Your task to perform on an android device: add a contact Image 0: 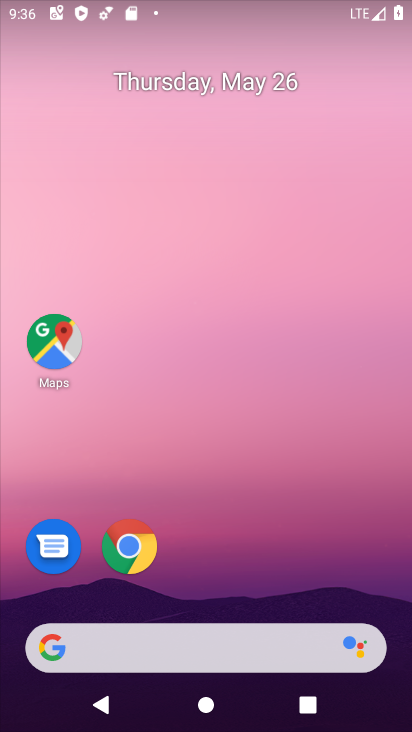
Step 0: drag from (309, 451) to (265, 242)
Your task to perform on an android device: add a contact Image 1: 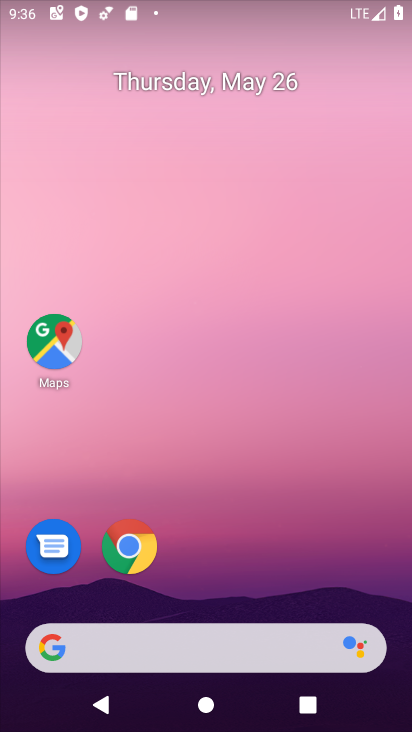
Step 1: drag from (391, 526) to (312, 193)
Your task to perform on an android device: add a contact Image 2: 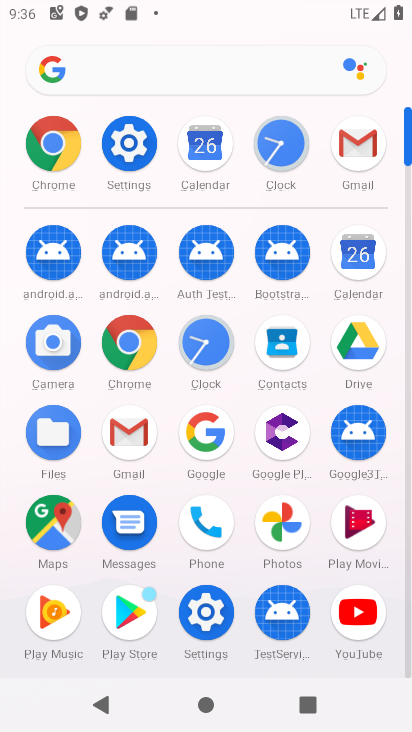
Step 2: click (286, 360)
Your task to perform on an android device: add a contact Image 3: 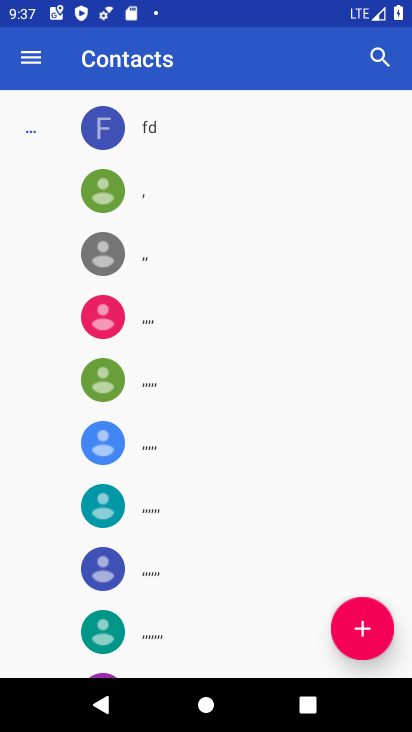
Step 3: click (362, 617)
Your task to perform on an android device: add a contact Image 4: 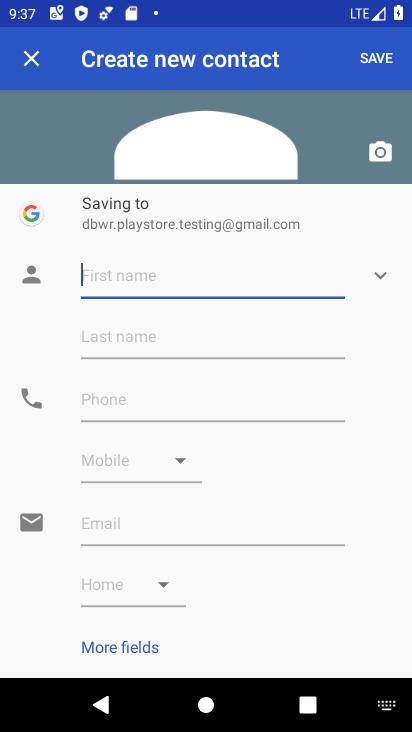
Step 4: type "soidjfo"
Your task to perform on an android device: add a contact Image 5: 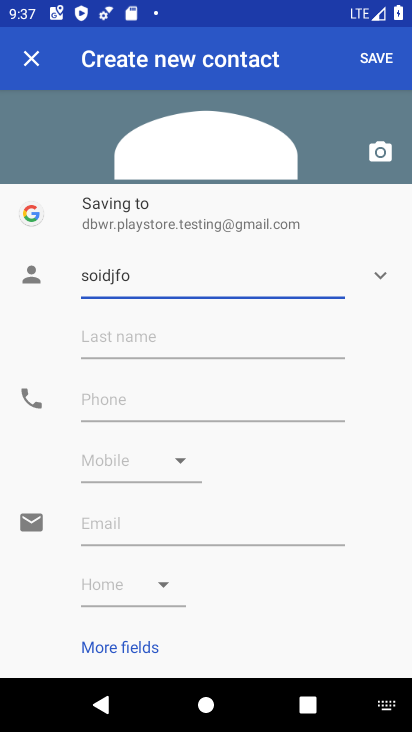
Step 5: click (192, 408)
Your task to perform on an android device: add a contact Image 6: 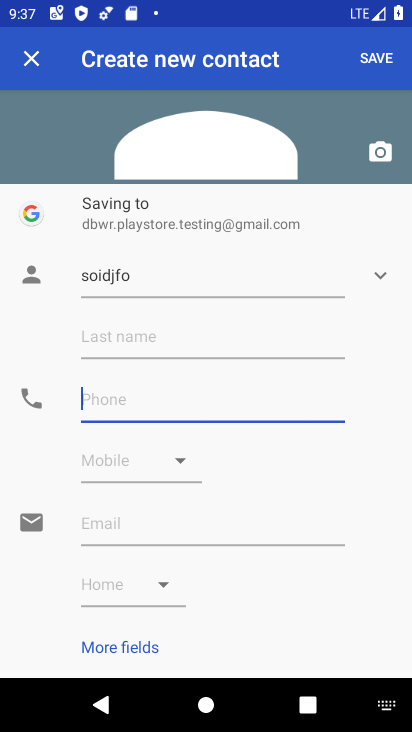
Step 6: type "9283983749"
Your task to perform on an android device: add a contact Image 7: 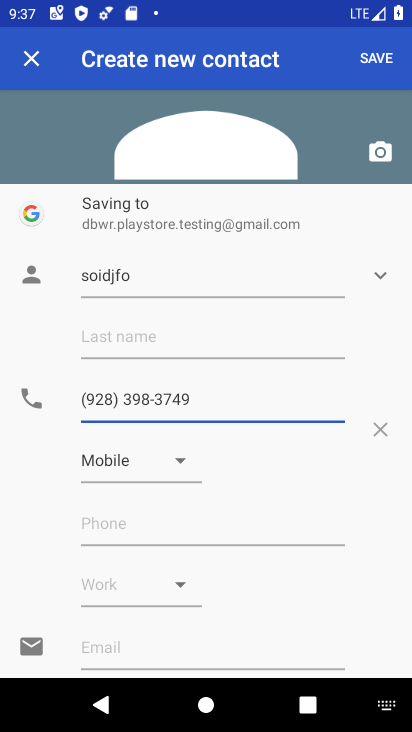
Step 7: click (373, 65)
Your task to perform on an android device: add a contact Image 8: 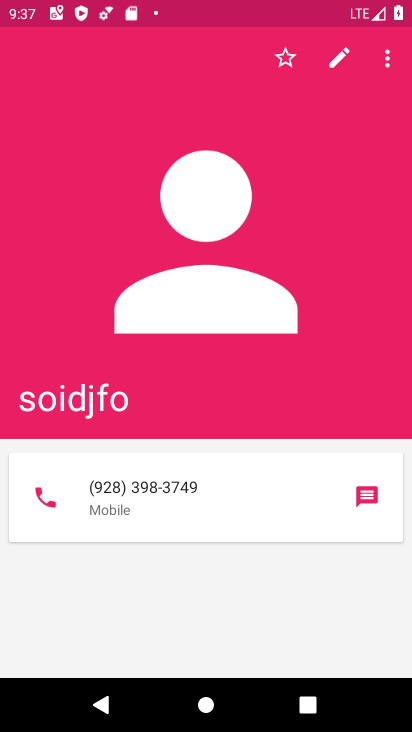
Step 8: task complete